Your task to perform on an android device: Turn off the flashlight Image 0: 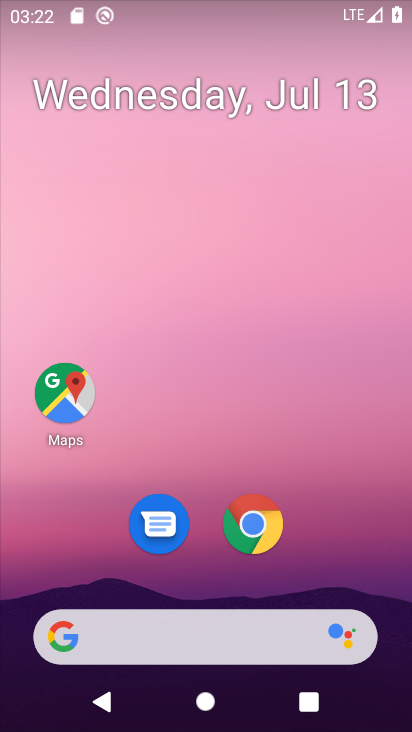
Step 0: drag from (321, 554) to (303, 44)
Your task to perform on an android device: Turn off the flashlight Image 1: 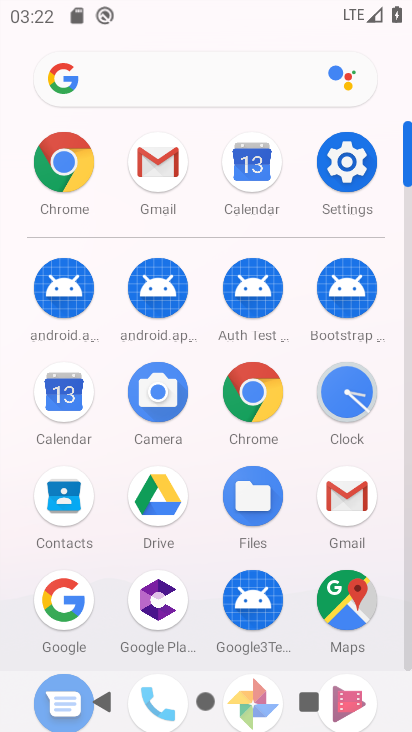
Step 1: click (339, 176)
Your task to perform on an android device: Turn off the flashlight Image 2: 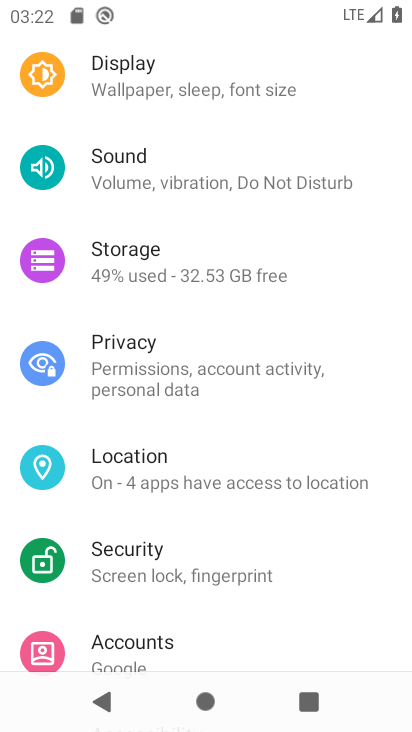
Step 2: drag from (248, 214) to (262, 654)
Your task to perform on an android device: Turn off the flashlight Image 3: 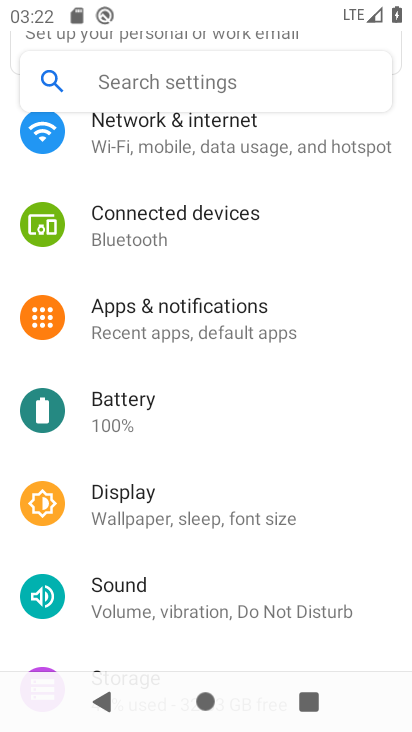
Step 3: drag from (219, 254) to (204, 607)
Your task to perform on an android device: Turn off the flashlight Image 4: 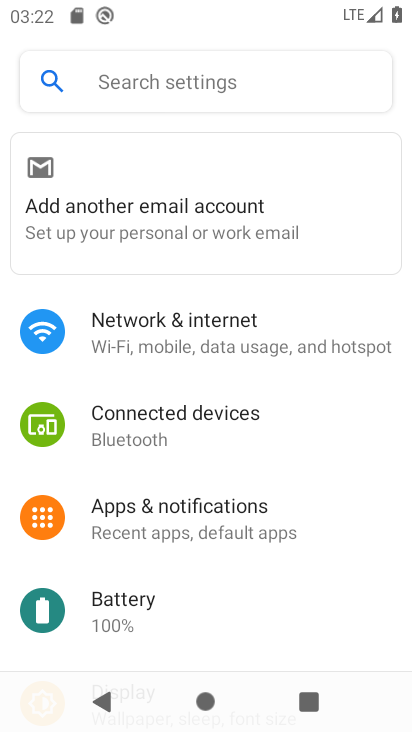
Step 4: click (239, 69)
Your task to perform on an android device: Turn off the flashlight Image 5: 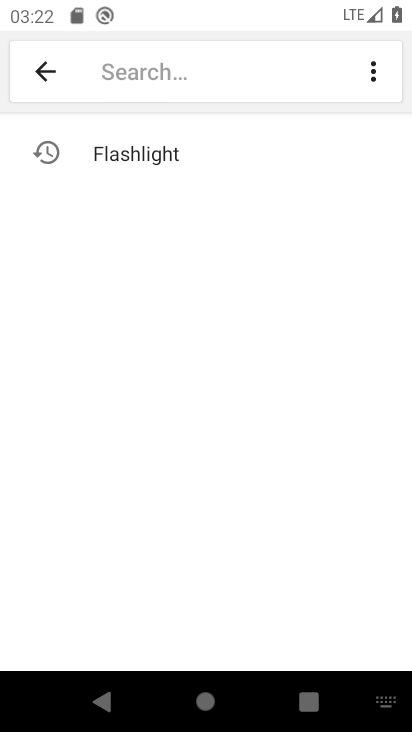
Step 5: click (174, 156)
Your task to perform on an android device: Turn off the flashlight Image 6: 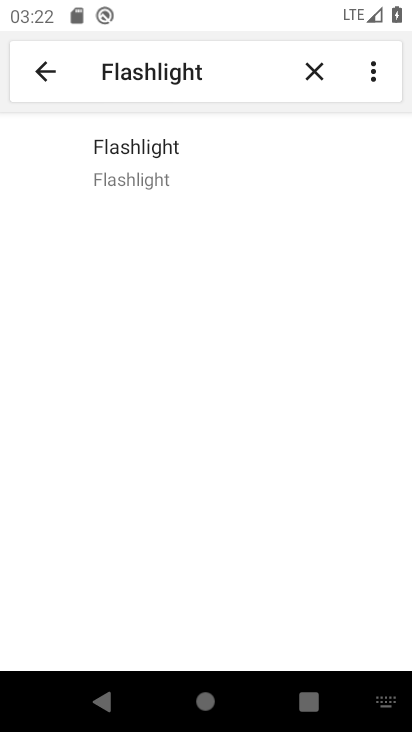
Step 6: click (160, 144)
Your task to perform on an android device: Turn off the flashlight Image 7: 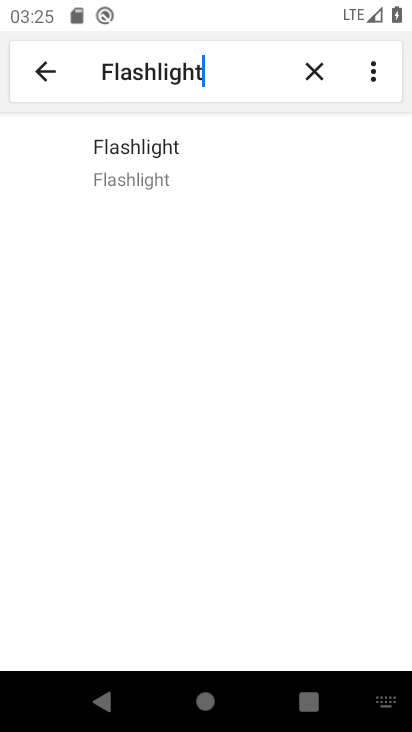
Step 7: task complete